Your task to perform on an android device: open app "Chime – Mobile Banking" (install if not already installed) and go to login screen Image 0: 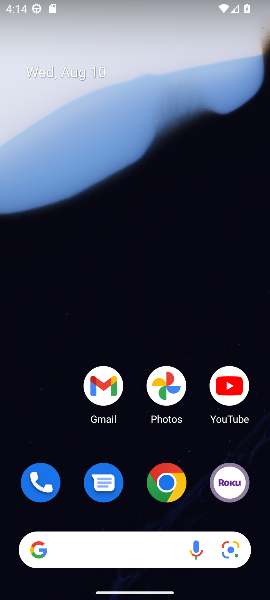
Step 0: drag from (143, 526) to (133, 20)
Your task to perform on an android device: open app "Chime – Mobile Banking" (install if not already installed) and go to login screen Image 1: 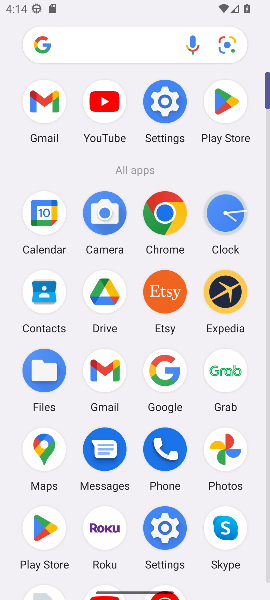
Step 1: click (226, 106)
Your task to perform on an android device: open app "Chime – Mobile Banking" (install if not already installed) and go to login screen Image 2: 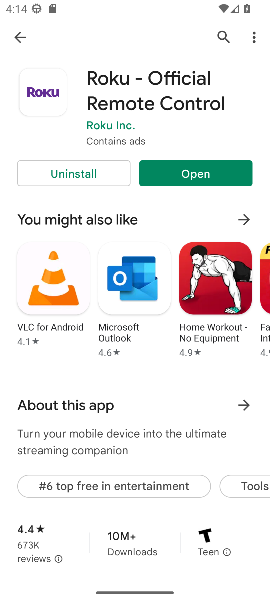
Step 2: click (222, 35)
Your task to perform on an android device: open app "Chime – Mobile Banking" (install if not already installed) and go to login screen Image 3: 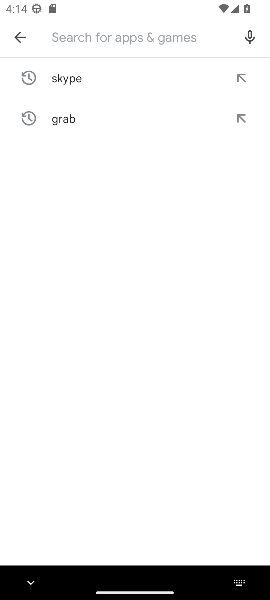
Step 3: type "Chime"
Your task to perform on an android device: open app "Chime – Mobile Banking" (install if not already installed) and go to login screen Image 4: 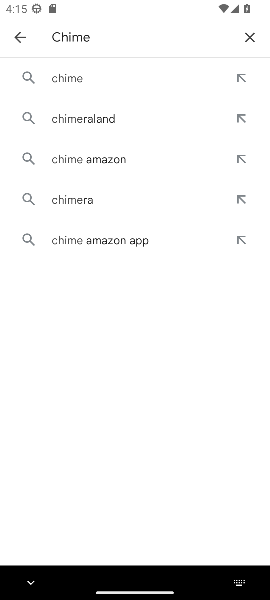
Step 4: type "– Mobile Banking"
Your task to perform on an android device: open app "Chime – Mobile Banking" (install if not already installed) and go to login screen Image 5: 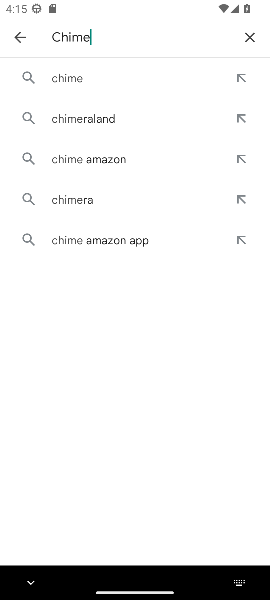
Step 5: type ""
Your task to perform on an android device: open app "Chime – Mobile Banking" (install if not already installed) and go to login screen Image 6: 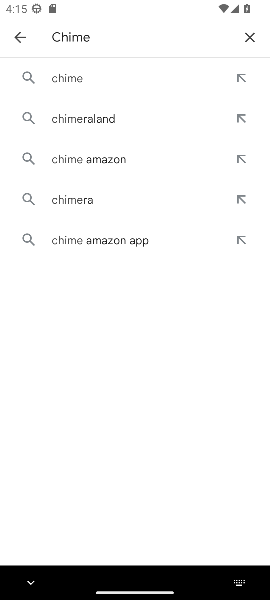
Step 6: type "– Mobile Banking"
Your task to perform on an android device: open app "Chime – Mobile Banking" (install if not already installed) and go to login screen Image 7: 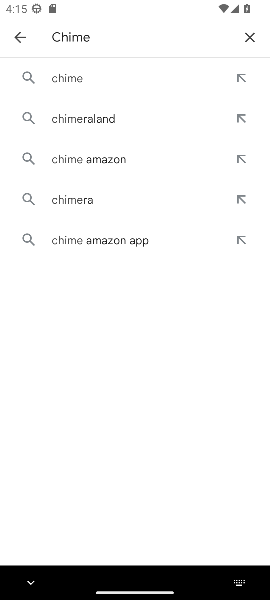
Step 7: type ""
Your task to perform on an android device: open app "Chime – Mobile Banking" (install if not already installed) and go to login screen Image 8: 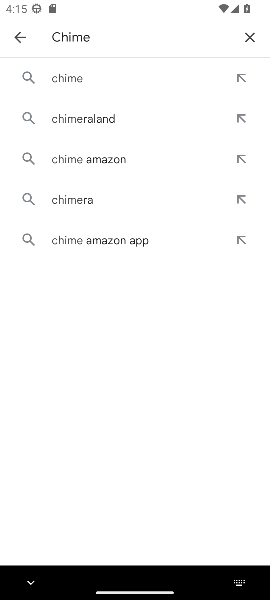
Step 8: click (109, 37)
Your task to perform on an android device: open app "Chime – Mobile Banking" (install if not already installed) and go to login screen Image 9: 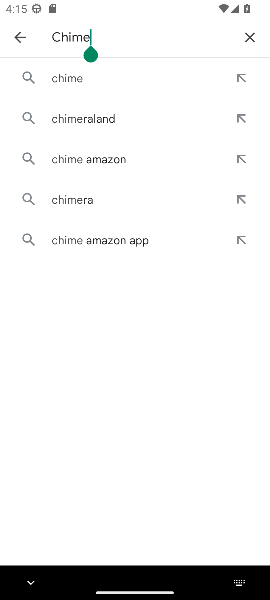
Step 9: click (70, 78)
Your task to perform on an android device: open app "Chime – Mobile Banking" (install if not already installed) and go to login screen Image 10: 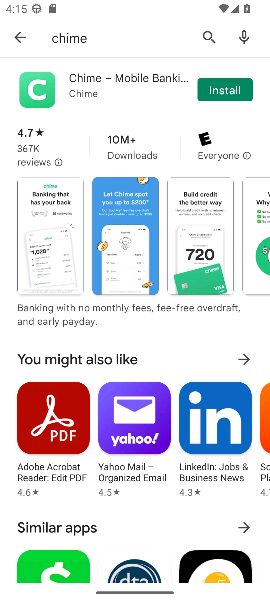
Step 10: click (219, 92)
Your task to perform on an android device: open app "Chime – Mobile Banking" (install if not already installed) and go to login screen Image 11: 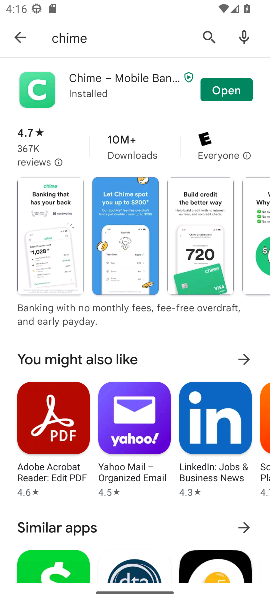
Step 11: click (225, 87)
Your task to perform on an android device: open app "Chime – Mobile Banking" (install if not already installed) and go to login screen Image 12: 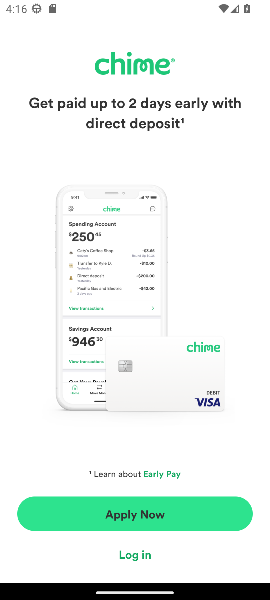
Step 12: click (131, 553)
Your task to perform on an android device: open app "Chime – Mobile Banking" (install if not already installed) and go to login screen Image 13: 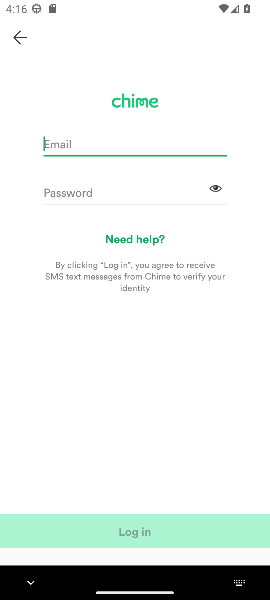
Step 13: task complete